Your task to perform on an android device: Search for Italian restaurants on Maps Image 0: 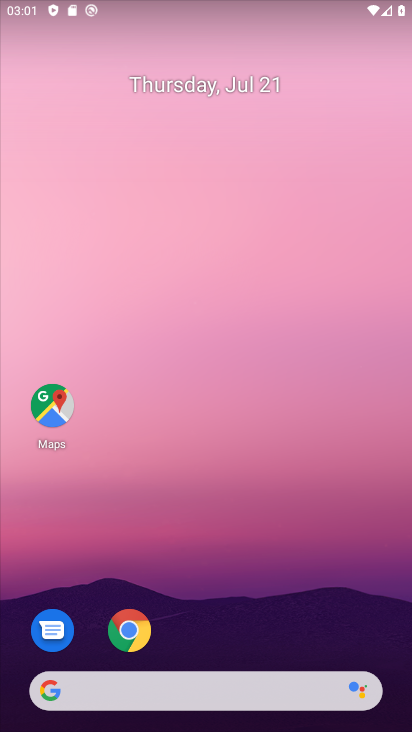
Step 0: click (50, 397)
Your task to perform on an android device: Search for Italian restaurants on Maps Image 1: 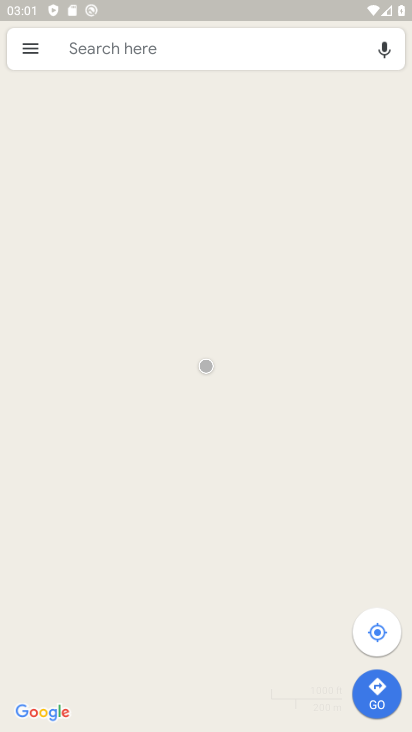
Step 1: click (196, 39)
Your task to perform on an android device: Search for Italian restaurants on Maps Image 2: 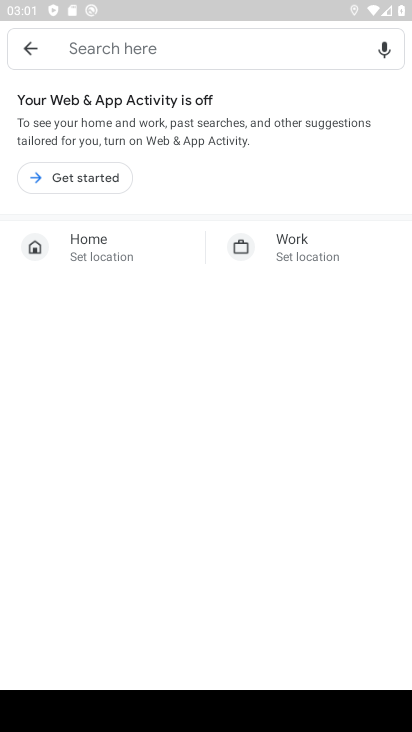
Step 2: type "italian restaurant"
Your task to perform on an android device: Search for Italian restaurants on Maps Image 3: 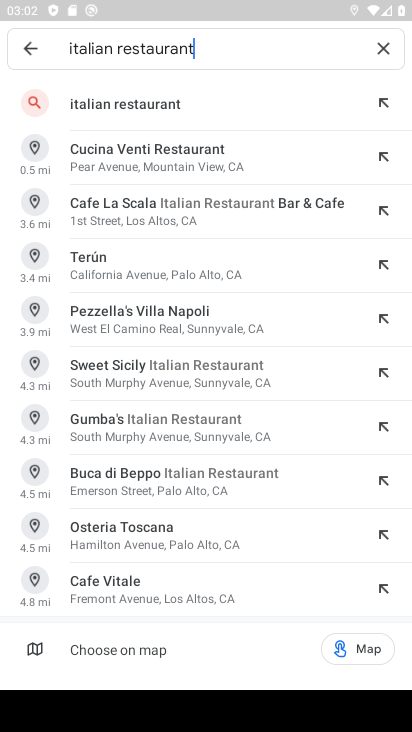
Step 3: click (139, 106)
Your task to perform on an android device: Search for Italian restaurants on Maps Image 4: 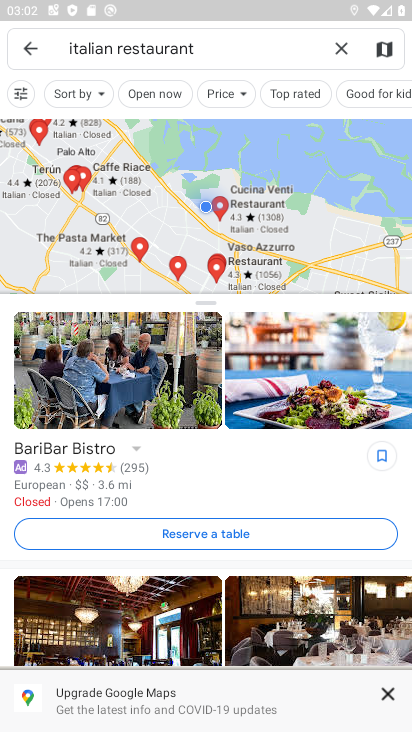
Step 4: task complete